Your task to perform on an android device: Open ESPN.com Image 0: 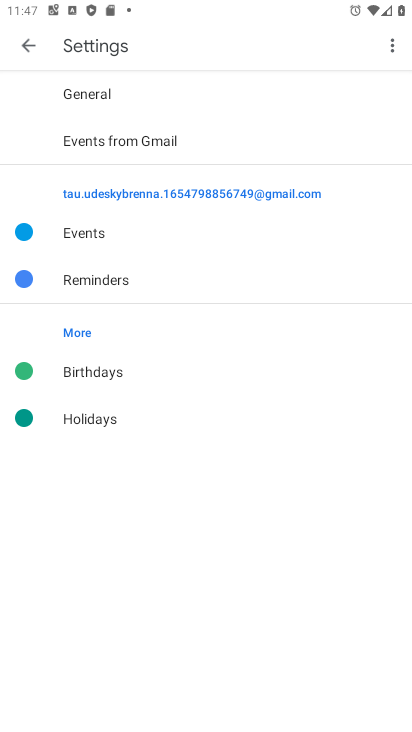
Step 0: press home button
Your task to perform on an android device: Open ESPN.com Image 1: 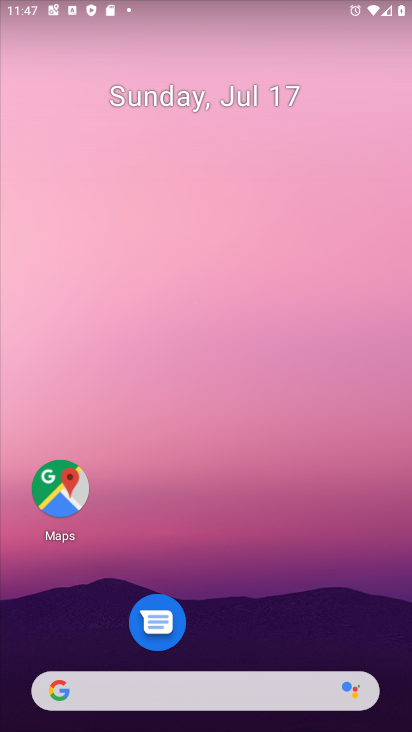
Step 1: click (189, 698)
Your task to perform on an android device: Open ESPN.com Image 2: 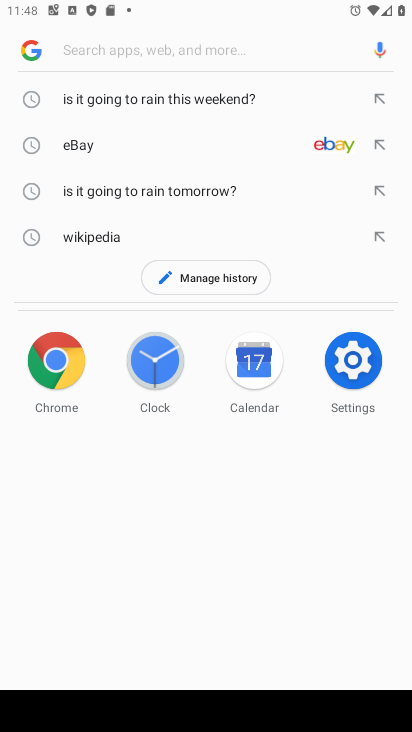
Step 2: type "espn.com"
Your task to perform on an android device: Open ESPN.com Image 3: 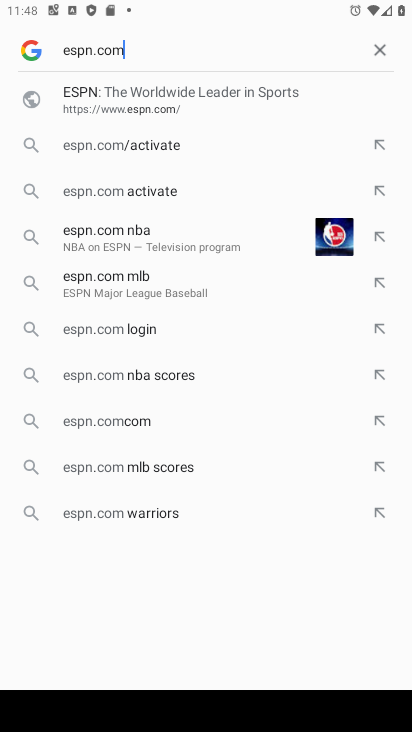
Step 3: click (173, 94)
Your task to perform on an android device: Open ESPN.com Image 4: 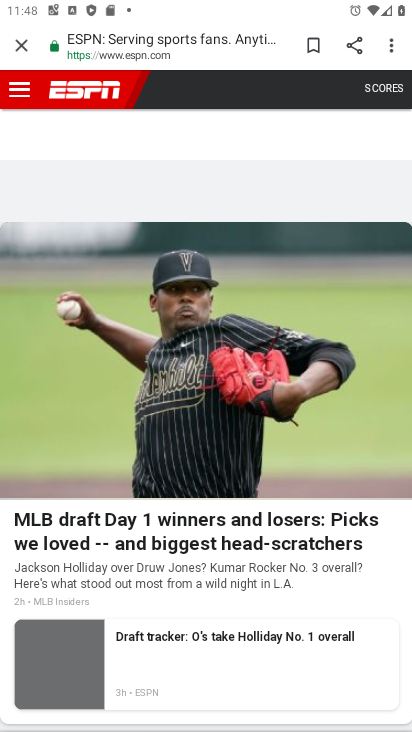
Step 4: task complete